Your task to perform on an android device: turn notification dots on Image 0: 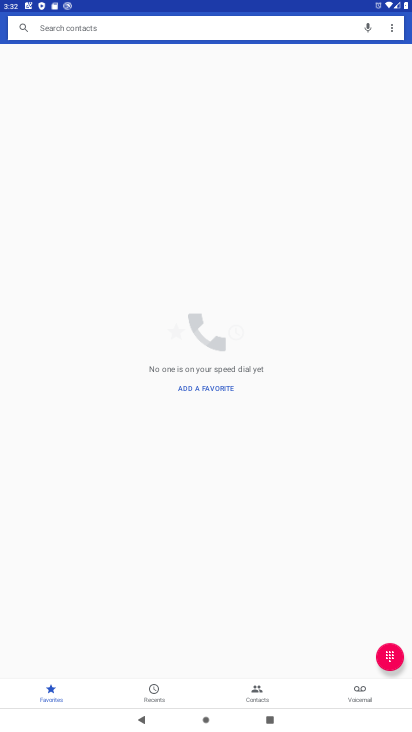
Step 0: press home button
Your task to perform on an android device: turn notification dots on Image 1: 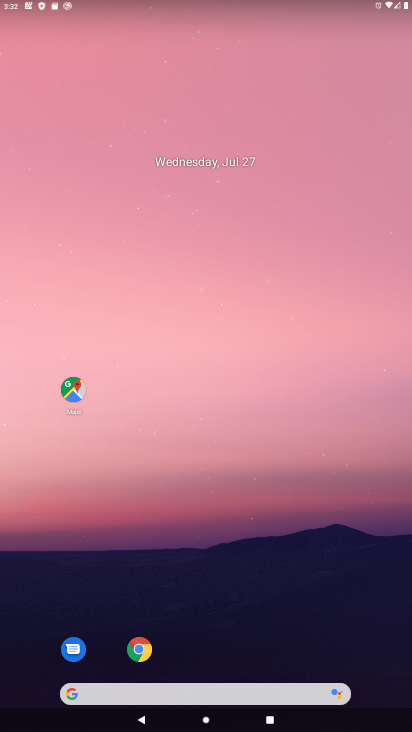
Step 1: drag from (372, 666) to (311, 132)
Your task to perform on an android device: turn notification dots on Image 2: 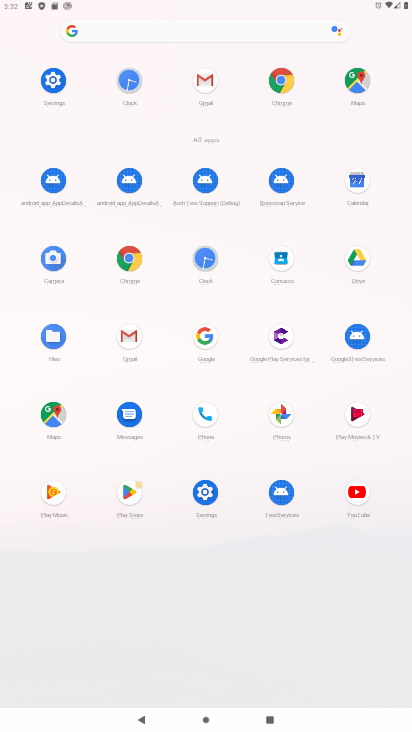
Step 2: click (207, 492)
Your task to perform on an android device: turn notification dots on Image 3: 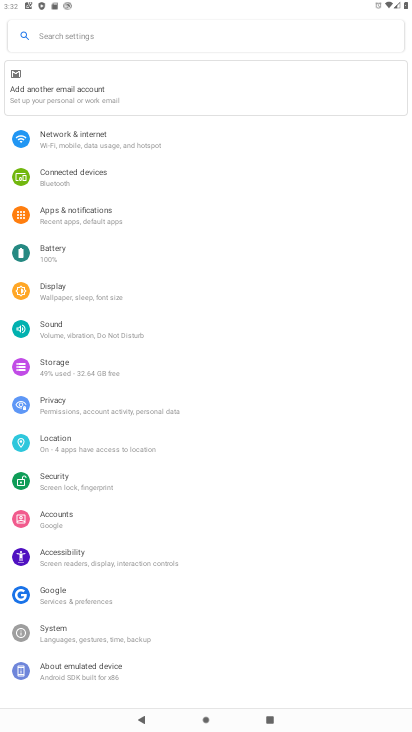
Step 3: click (90, 212)
Your task to perform on an android device: turn notification dots on Image 4: 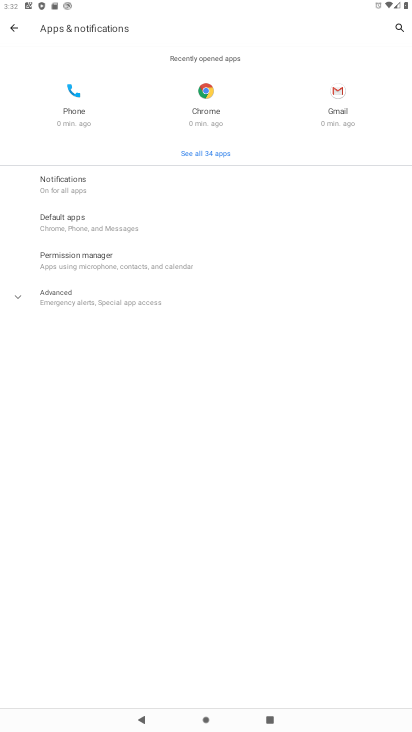
Step 4: click (53, 186)
Your task to perform on an android device: turn notification dots on Image 5: 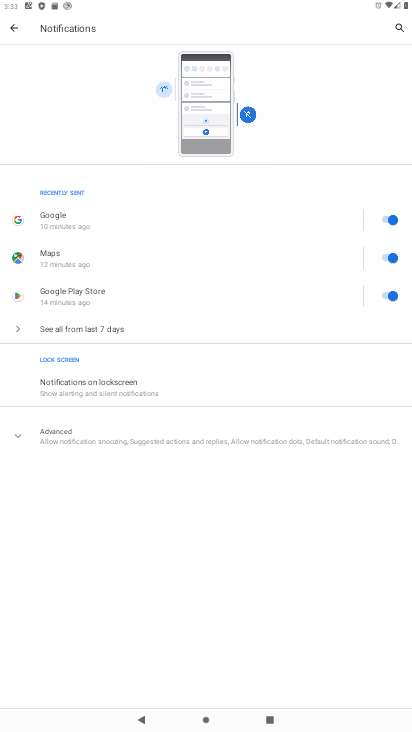
Step 5: click (14, 435)
Your task to perform on an android device: turn notification dots on Image 6: 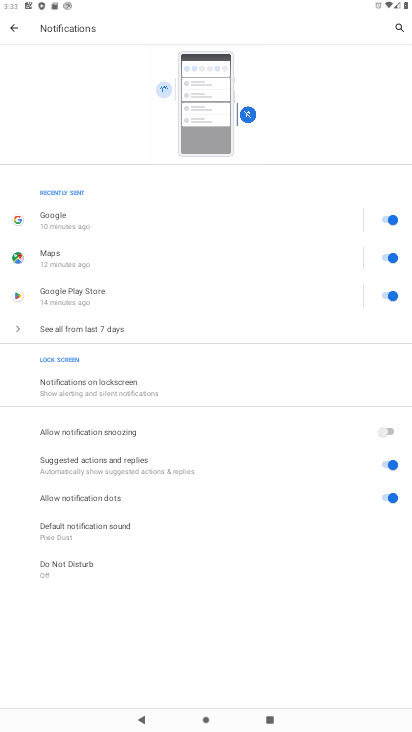
Step 6: task complete